Your task to perform on an android device: Go to Google Image 0: 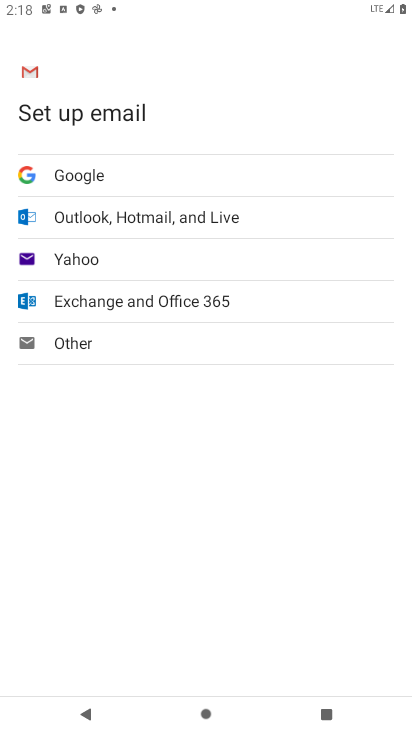
Step 0: press home button
Your task to perform on an android device: Go to Google Image 1: 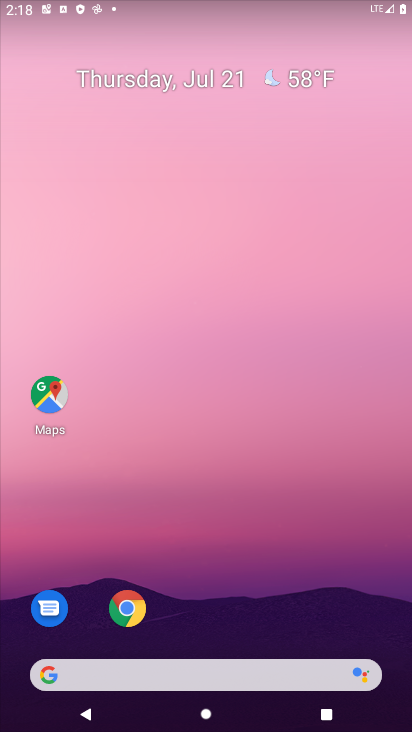
Step 1: drag from (282, 431) to (155, 60)
Your task to perform on an android device: Go to Google Image 2: 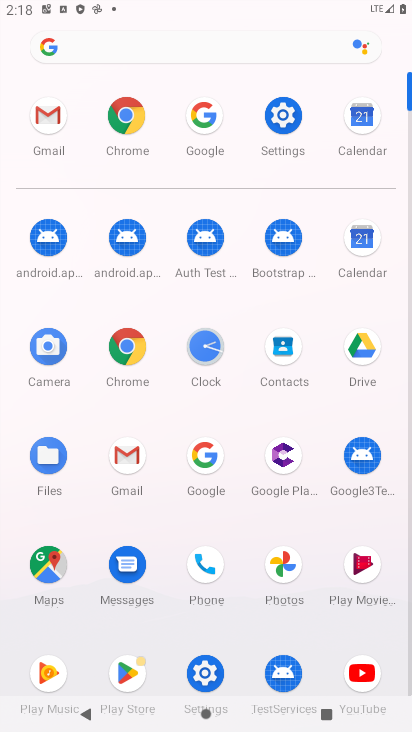
Step 2: click (212, 456)
Your task to perform on an android device: Go to Google Image 3: 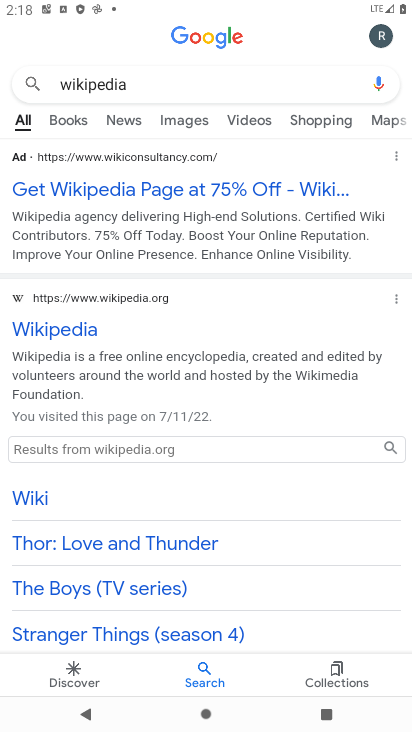
Step 3: task complete